Your task to perform on an android device: Turn on the flashlight Image 0: 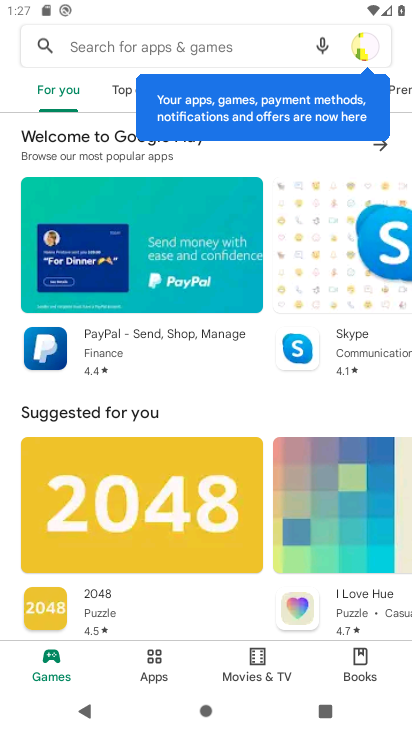
Step 0: press home button
Your task to perform on an android device: Turn on the flashlight Image 1: 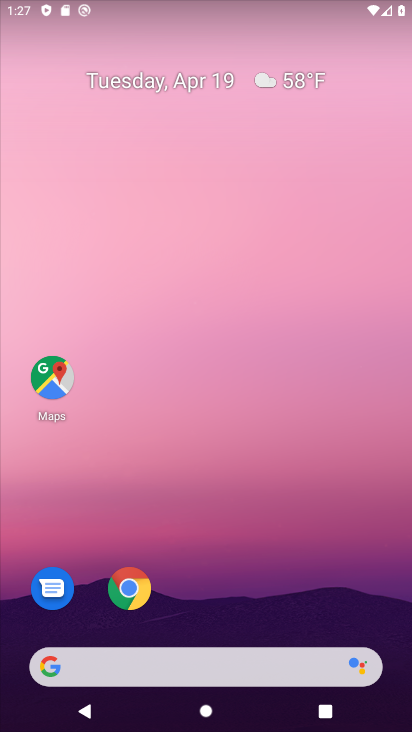
Step 1: click (128, 592)
Your task to perform on an android device: Turn on the flashlight Image 2: 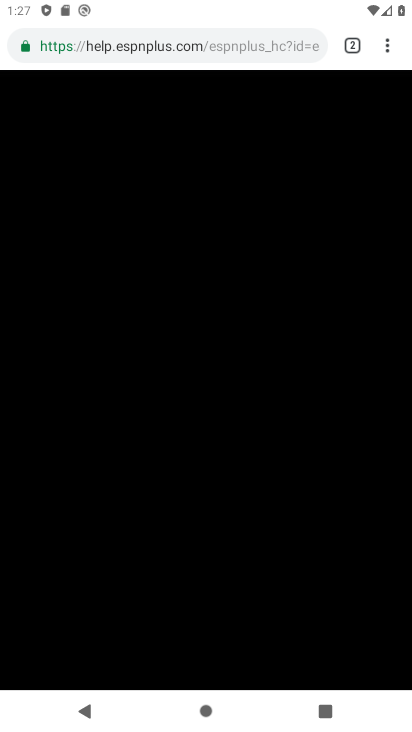
Step 2: click (388, 38)
Your task to perform on an android device: Turn on the flashlight Image 3: 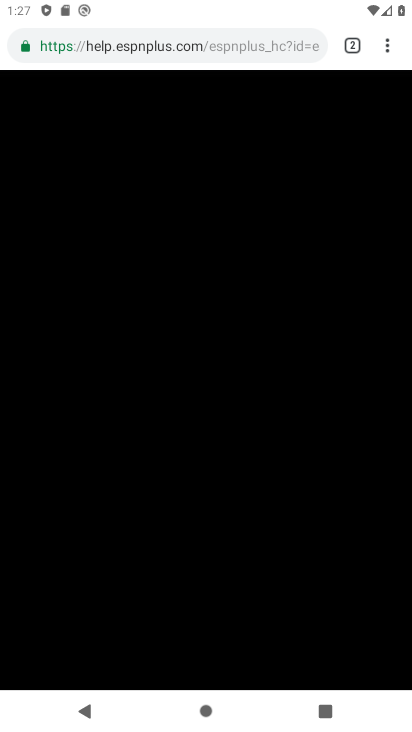
Step 3: click (350, 42)
Your task to perform on an android device: Turn on the flashlight Image 4: 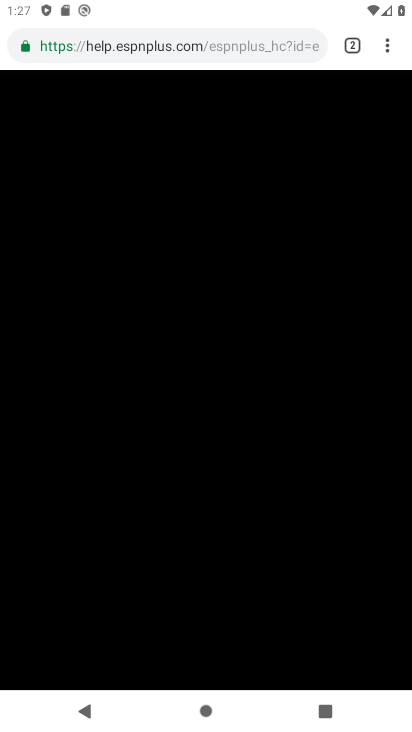
Step 4: click (350, 42)
Your task to perform on an android device: Turn on the flashlight Image 5: 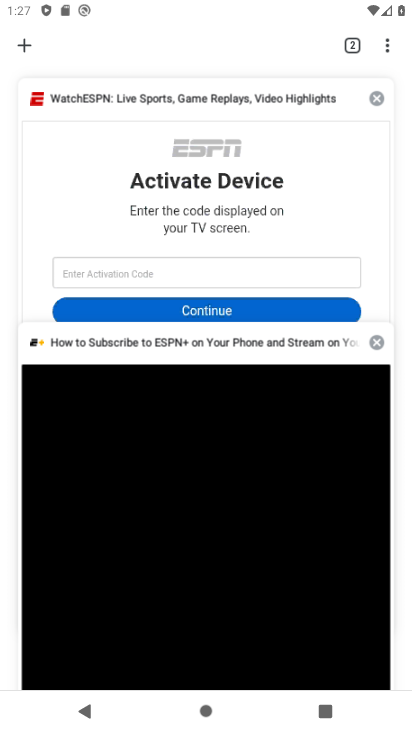
Step 5: click (376, 86)
Your task to perform on an android device: Turn on the flashlight Image 6: 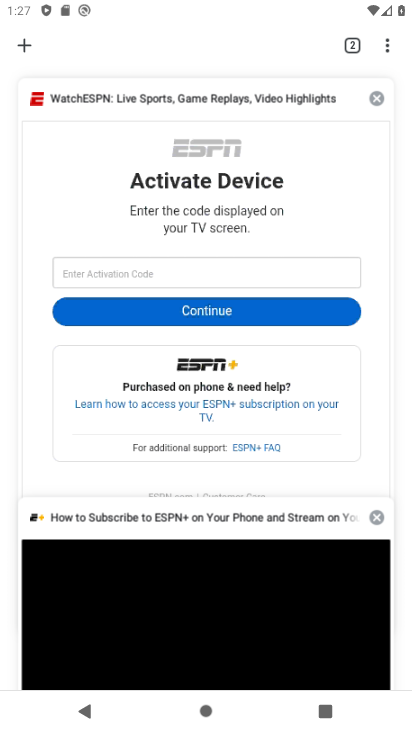
Step 6: click (377, 93)
Your task to perform on an android device: Turn on the flashlight Image 7: 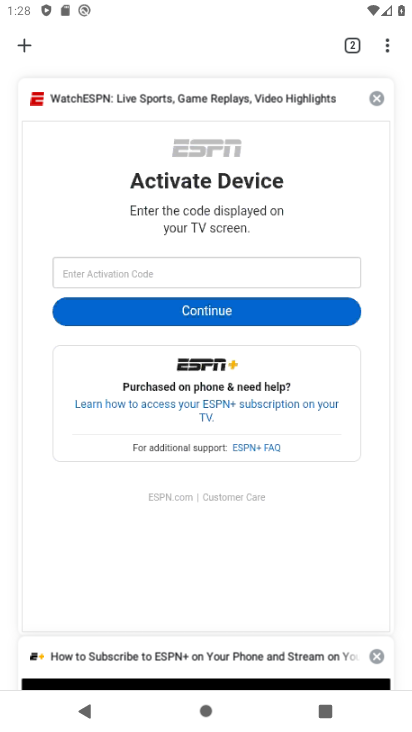
Step 7: click (377, 93)
Your task to perform on an android device: Turn on the flashlight Image 8: 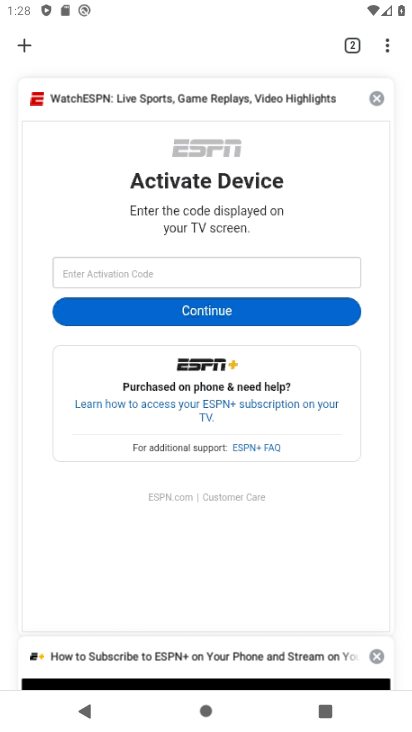
Step 8: click (373, 96)
Your task to perform on an android device: Turn on the flashlight Image 9: 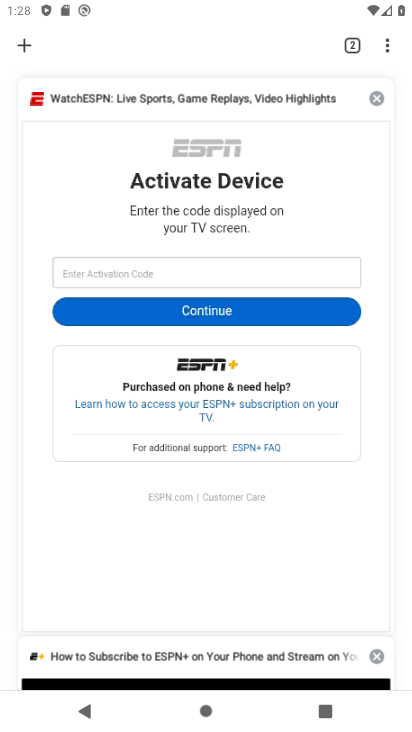
Step 9: click (376, 96)
Your task to perform on an android device: Turn on the flashlight Image 10: 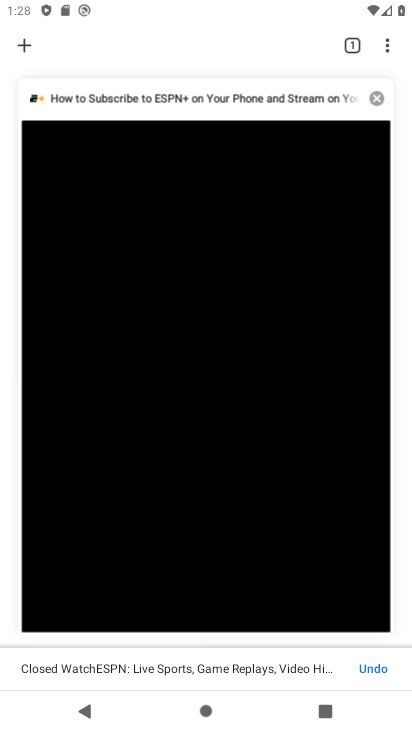
Step 10: click (376, 96)
Your task to perform on an android device: Turn on the flashlight Image 11: 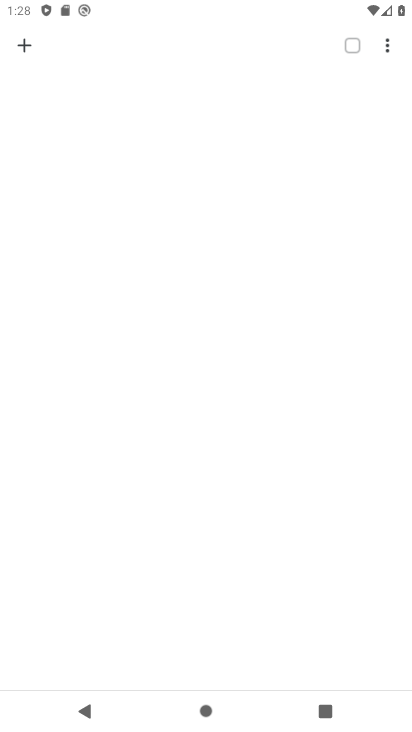
Step 11: click (24, 42)
Your task to perform on an android device: Turn on the flashlight Image 12: 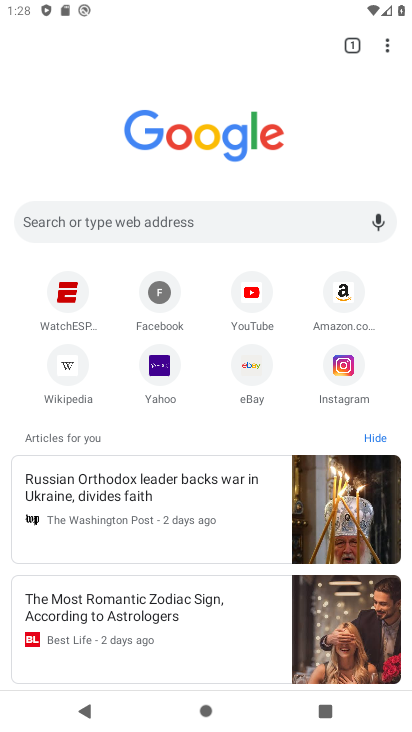
Step 12: click (342, 285)
Your task to perform on an android device: Turn on the flashlight Image 13: 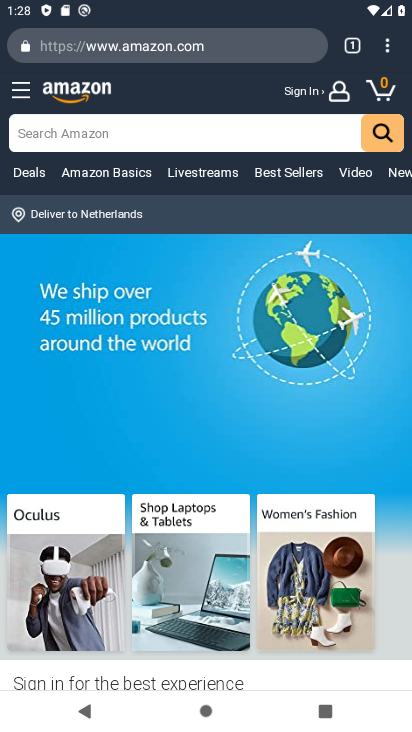
Step 13: click (385, 52)
Your task to perform on an android device: Turn on the flashlight Image 14: 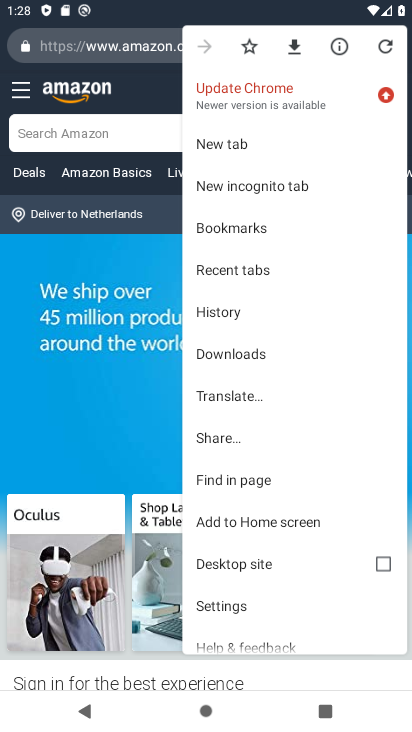
Step 14: click (306, 150)
Your task to perform on an android device: Turn on the flashlight Image 15: 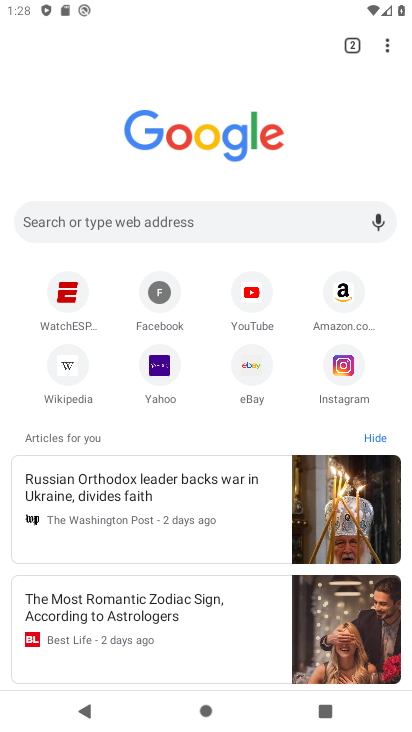
Step 15: press home button
Your task to perform on an android device: Turn on the flashlight Image 16: 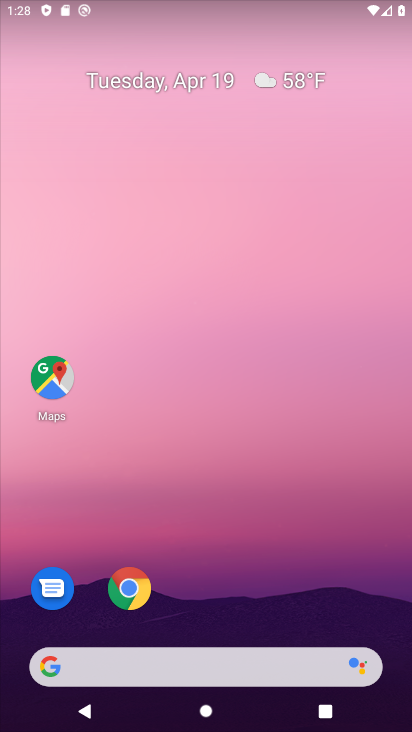
Step 16: drag from (356, 377) to (386, 62)
Your task to perform on an android device: Turn on the flashlight Image 17: 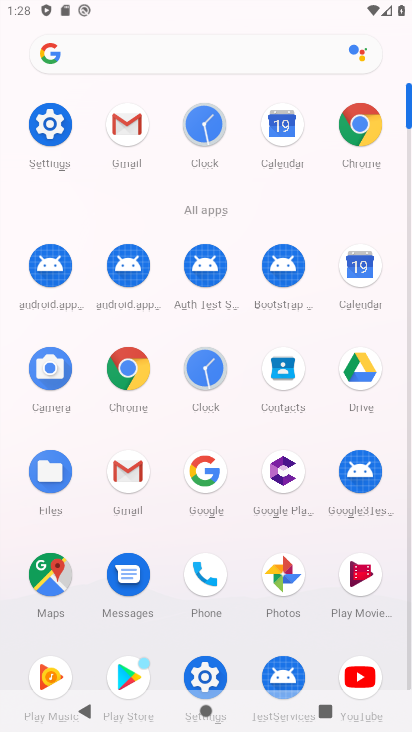
Step 17: click (50, 126)
Your task to perform on an android device: Turn on the flashlight Image 18: 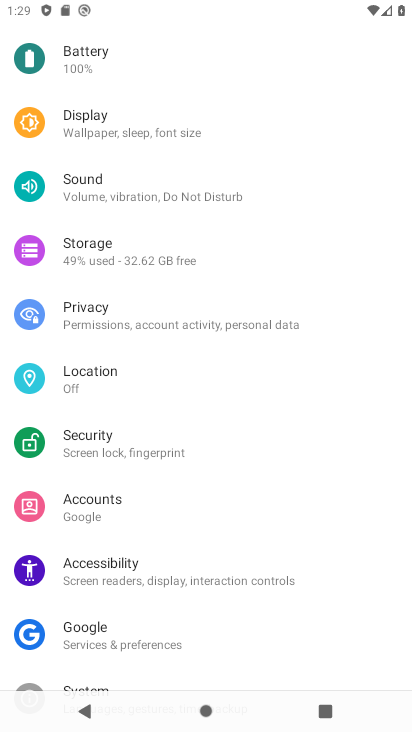
Step 18: drag from (224, 178) to (184, 650)
Your task to perform on an android device: Turn on the flashlight Image 19: 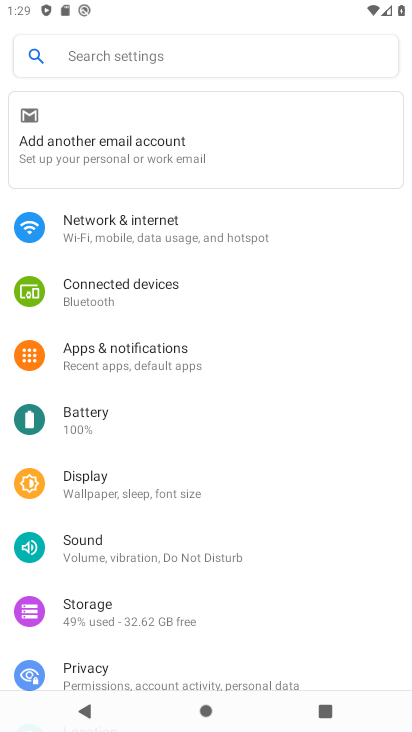
Step 19: drag from (243, 153) to (234, 537)
Your task to perform on an android device: Turn on the flashlight Image 20: 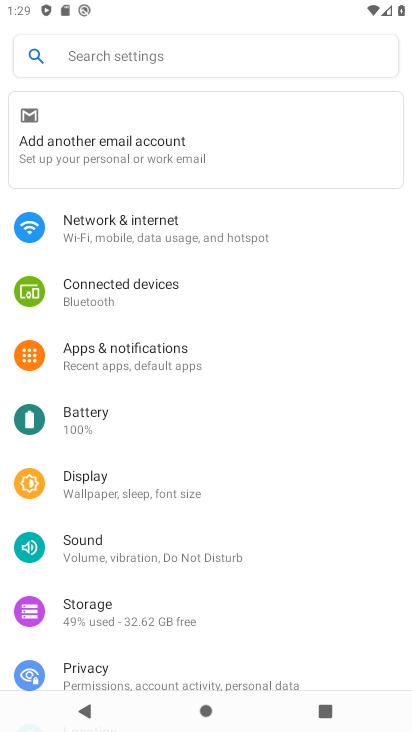
Step 20: click (263, 49)
Your task to perform on an android device: Turn on the flashlight Image 21: 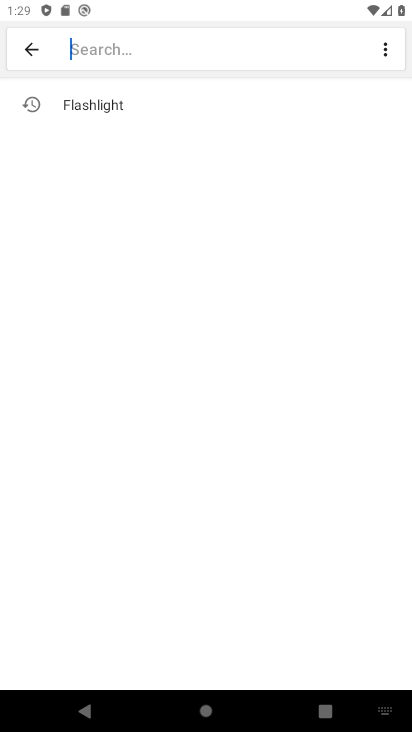
Step 21: click (94, 106)
Your task to perform on an android device: Turn on the flashlight Image 22: 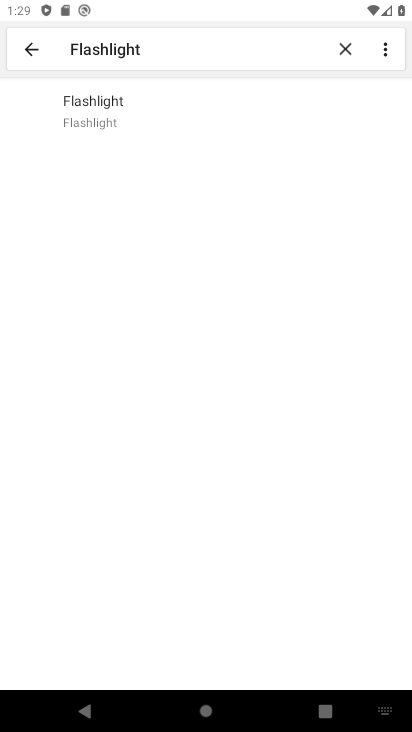
Step 22: task complete